Your task to perform on an android device: show emergency info Image 0: 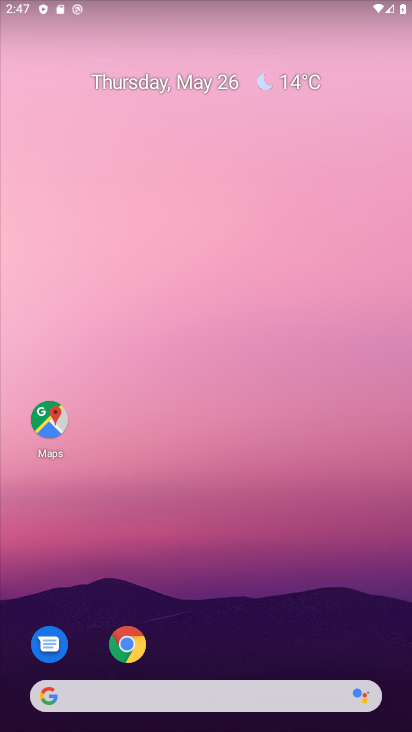
Step 0: drag from (318, 610) to (262, 139)
Your task to perform on an android device: show emergency info Image 1: 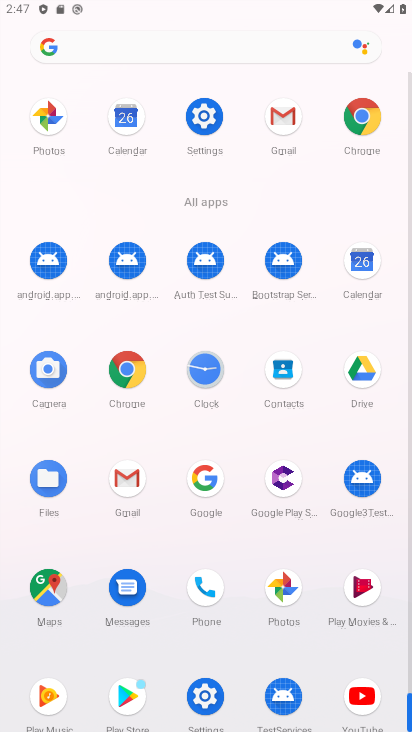
Step 1: click (174, 117)
Your task to perform on an android device: show emergency info Image 2: 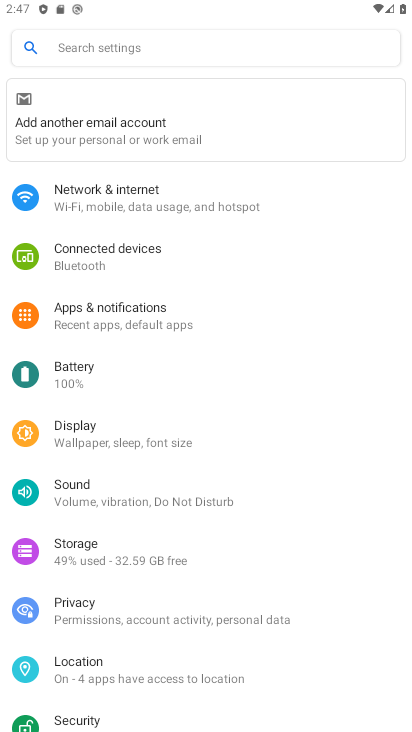
Step 2: drag from (246, 635) to (225, 139)
Your task to perform on an android device: show emergency info Image 3: 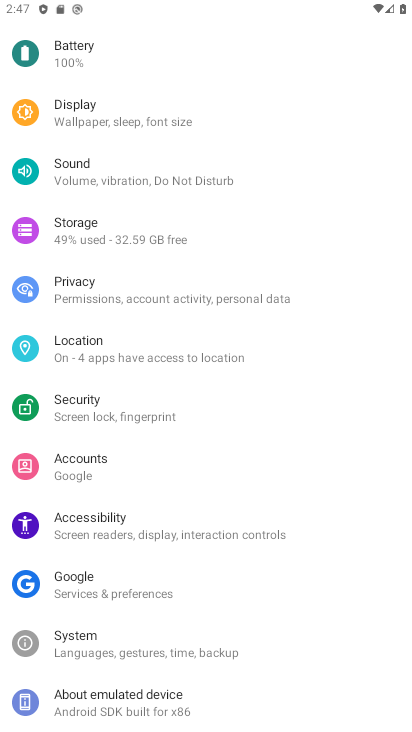
Step 3: drag from (184, 603) to (206, 195)
Your task to perform on an android device: show emergency info Image 4: 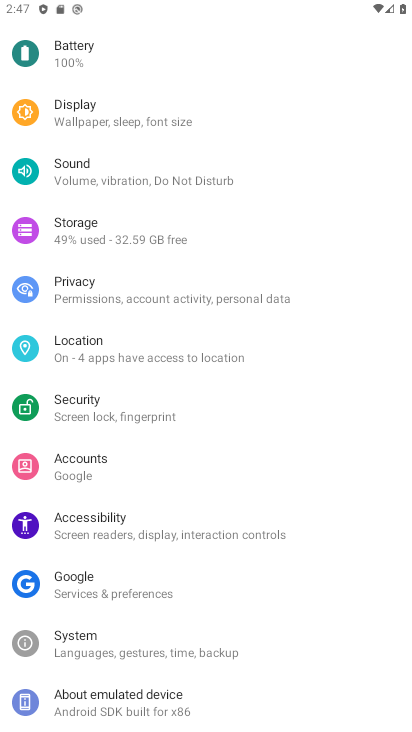
Step 4: click (163, 688)
Your task to perform on an android device: show emergency info Image 5: 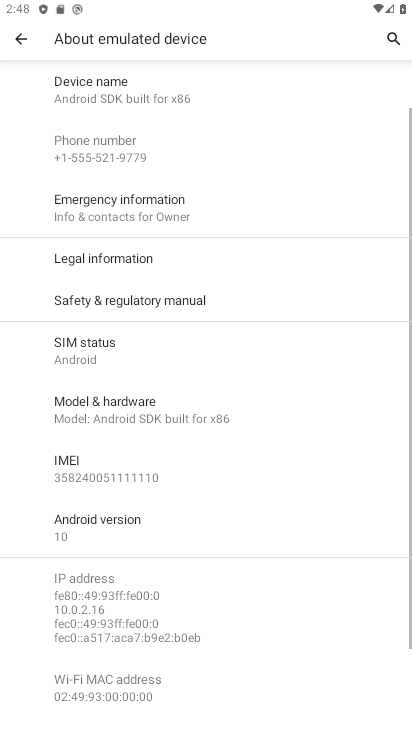
Step 5: click (173, 213)
Your task to perform on an android device: show emergency info Image 6: 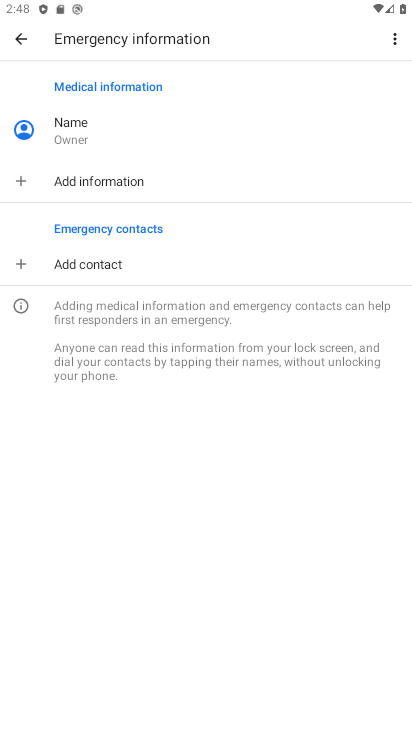
Step 6: task complete